Your task to perform on an android device: Go to Reddit.com Image 0: 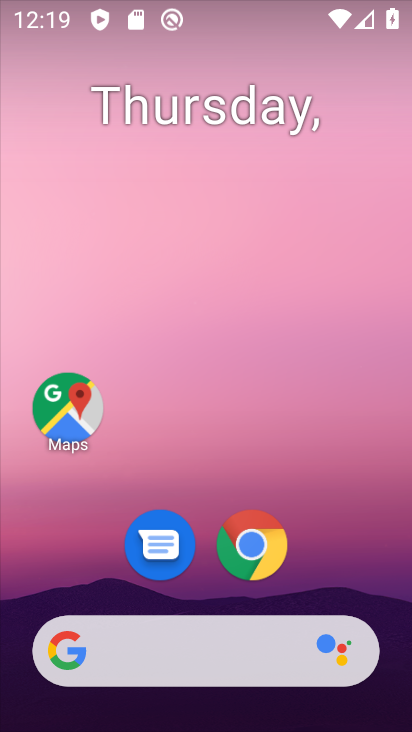
Step 0: drag from (315, 594) to (313, 234)
Your task to perform on an android device: Go to Reddit.com Image 1: 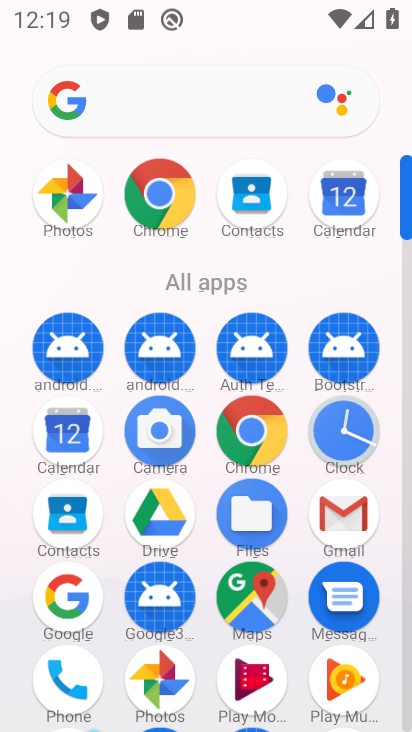
Step 1: click (251, 449)
Your task to perform on an android device: Go to Reddit.com Image 2: 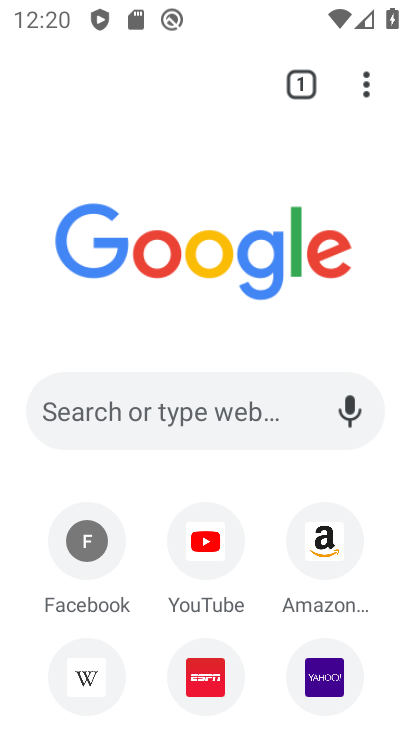
Step 2: click (173, 432)
Your task to perform on an android device: Go to Reddit.com Image 3: 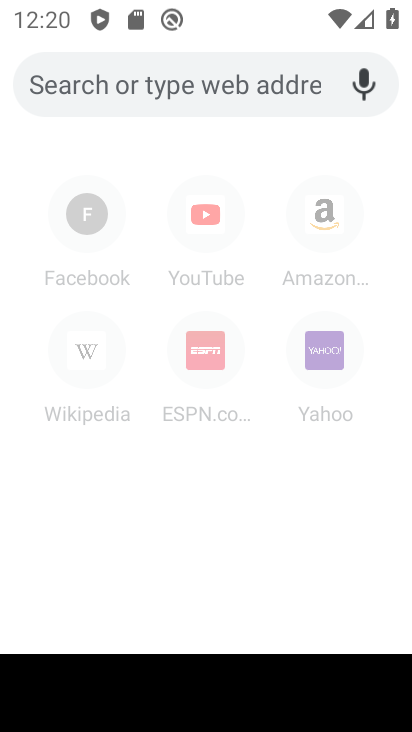
Step 3: type " Reddit.com"
Your task to perform on an android device: Go to Reddit.com Image 4: 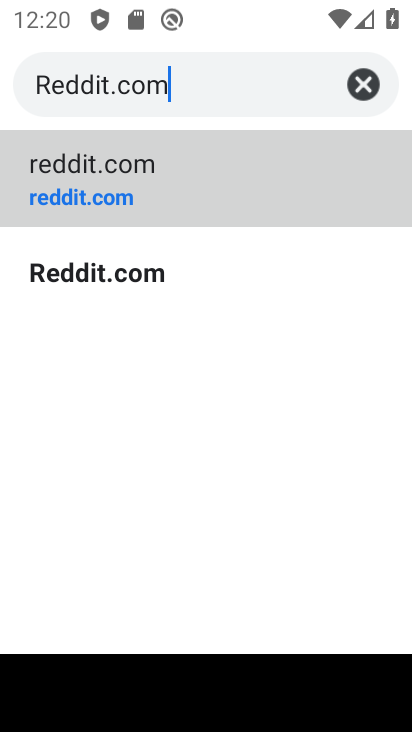
Step 4: type ""
Your task to perform on an android device: Go to Reddit.com Image 5: 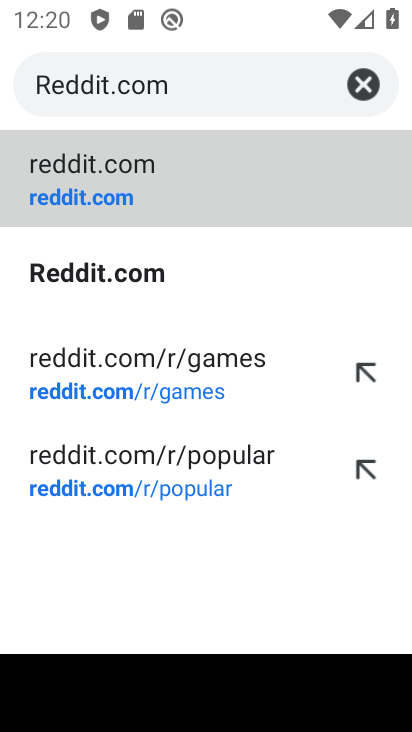
Step 5: click (231, 211)
Your task to perform on an android device: Go to Reddit.com Image 6: 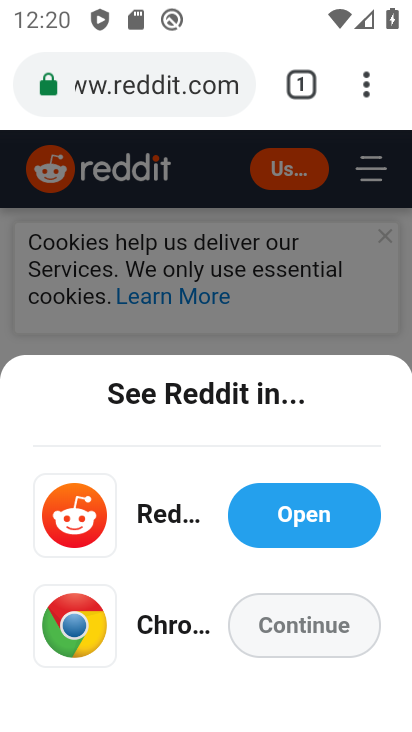
Step 6: click (274, 621)
Your task to perform on an android device: Go to Reddit.com Image 7: 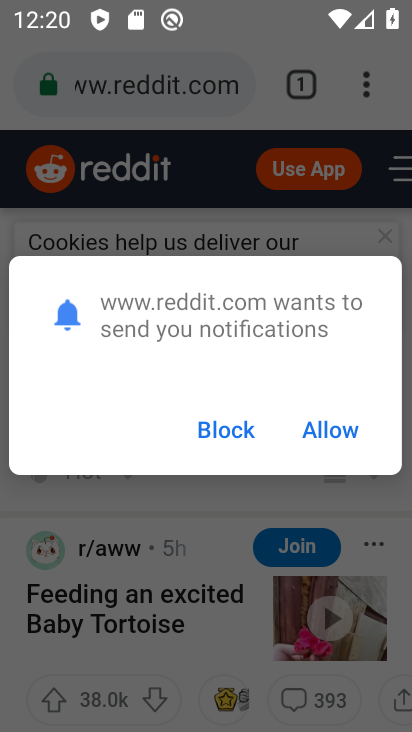
Step 7: click (312, 435)
Your task to perform on an android device: Go to Reddit.com Image 8: 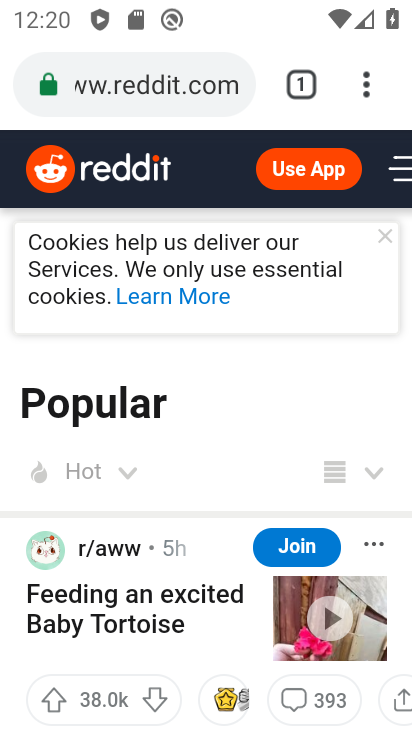
Step 8: task complete